Your task to perform on an android device: toggle show notifications on the lock screen Image 0: 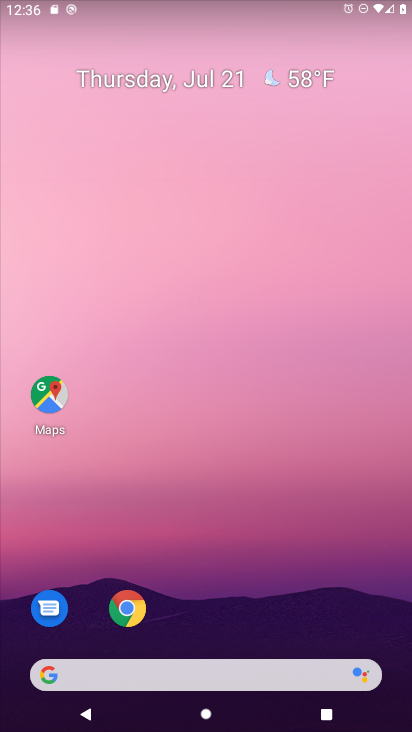
Step 0: press home button
Your task to perform on an android device: toggle show notifications on the lock screen Image 1: 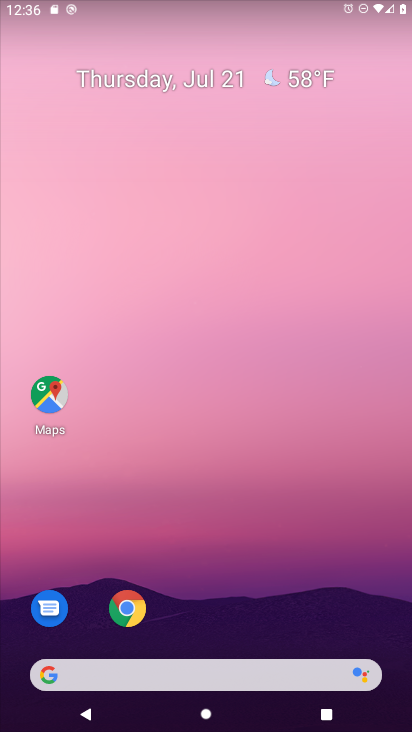
Step 1: drag from (255, 636) to (227, 4)
Your task to perform on an android device: toggle show notifications on the lock screen Image 2: 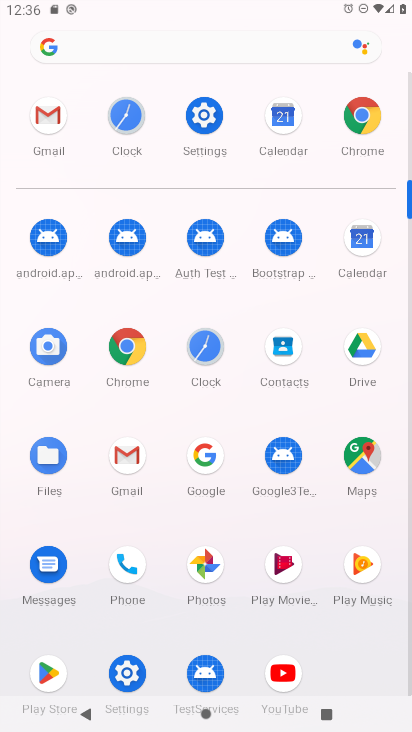
Step 2: click (197, 122)
Your task to perform on an android device: toggle show notifications on the lock screen Image 3: 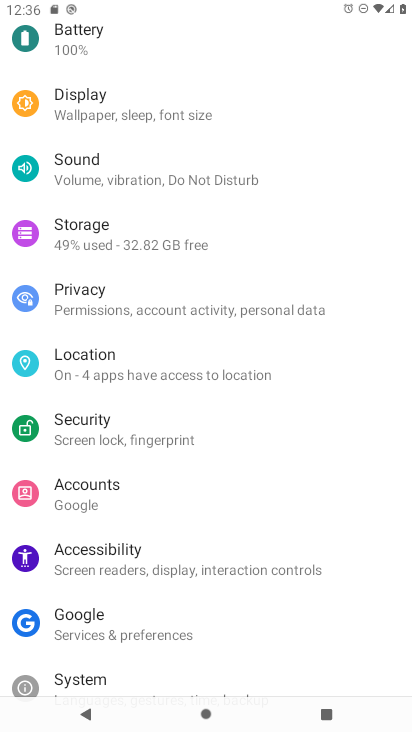
Step 3: drag from (197, 68) to (169, 600)
Your task to perform on an android device: toggle show notifications on the lock screen Image 4: 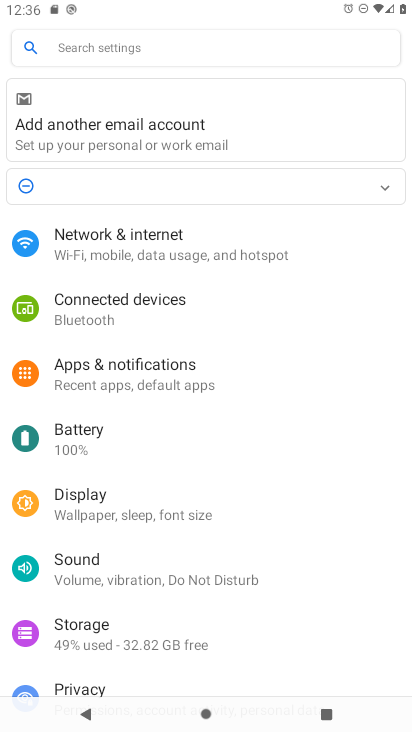
Step 4: click (117, 378)
Your task to perform on an android device: toggle show notifications on the lock screen Image 5: 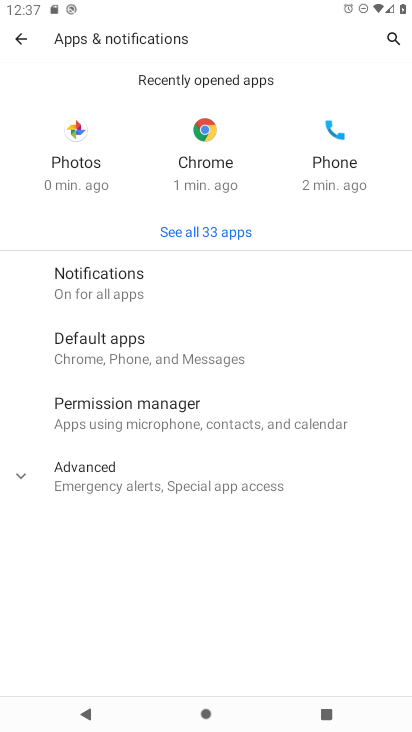
Step 5: click (83, 281)
Your task to perform on an android device: toggle show notifications on the lock screen Image 6: 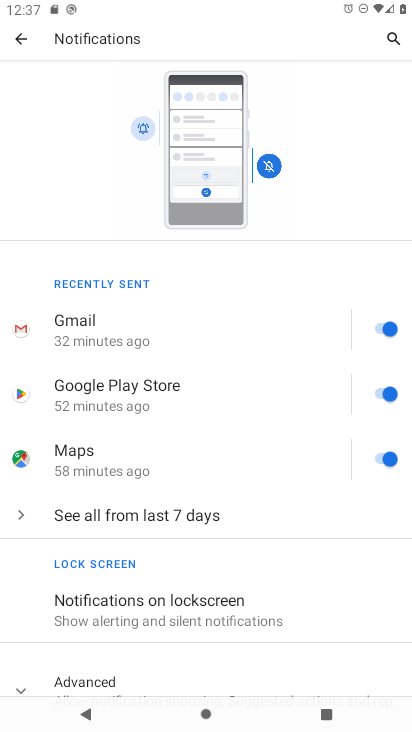
Step 6: click (154, 610)
Your task to perform on an android device: toggle show notifications on the lock screen Image 7: 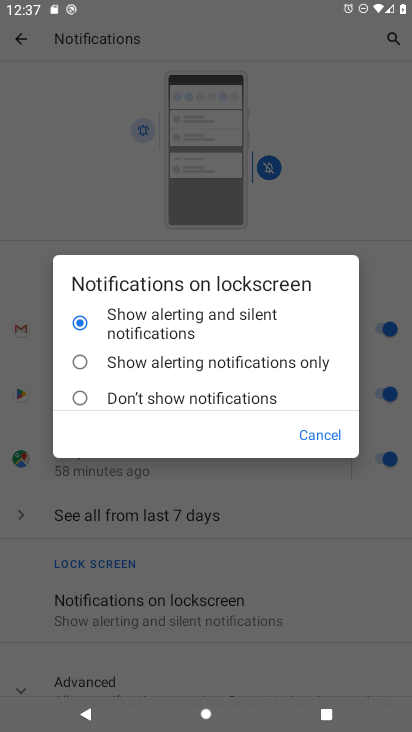
Step 7: click (80, 400)
Your task to perform on an android device: toggle show notifications on the lock screen Image 8: 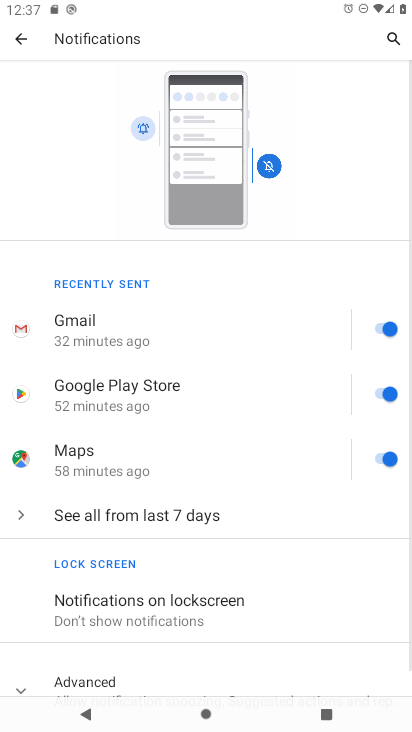
Step 8: task complete